Your task to perform on an android device: open app "Adobe Acrobat Reader" (install if not already installed) and go to login screen Image 0: 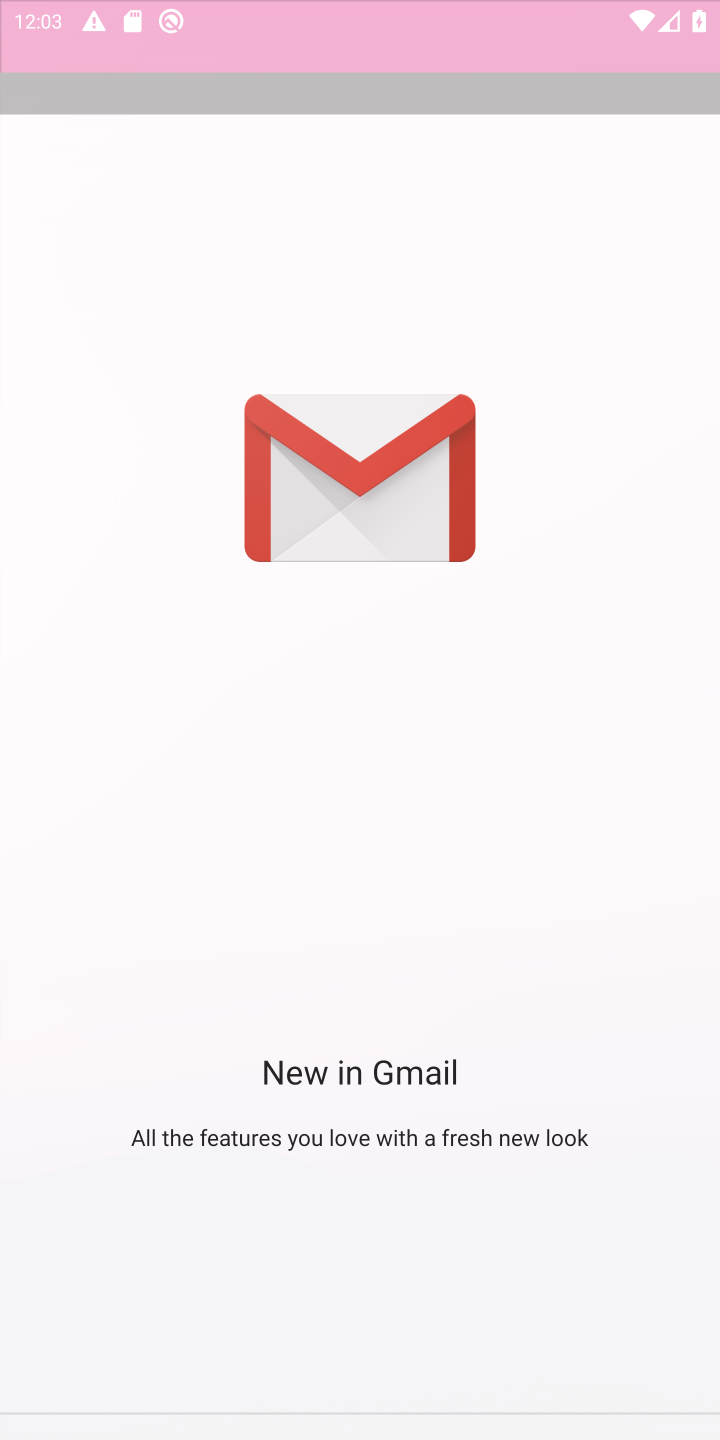
Step 0: click (574, 90)
Your task to perform on an android device: open app "Adobe Acrobat Reader" (install if not already installed) and go to login screen Image 1: 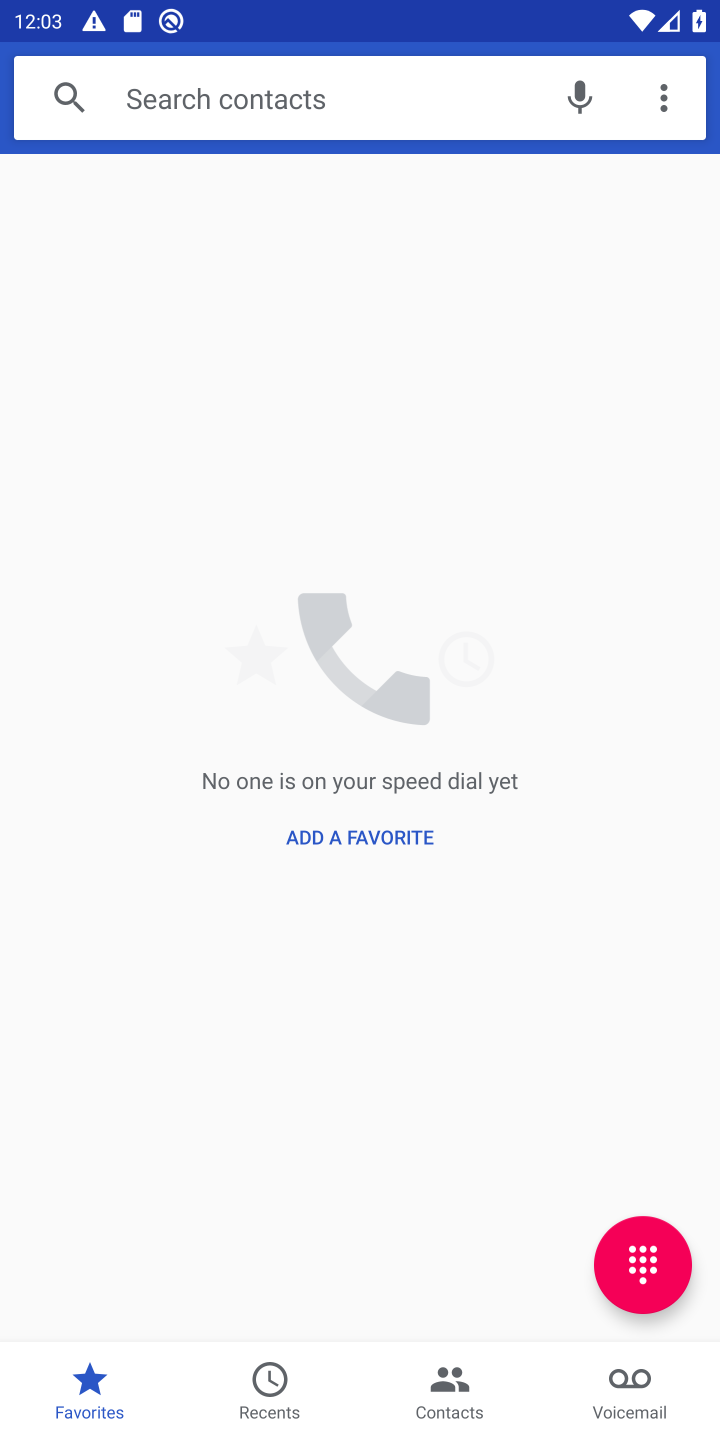
Step 1: press back button
Your task to perform on an android device: open app "Adobe Acrobat Reader" (install if not already installed) and go to login screen Image 2: 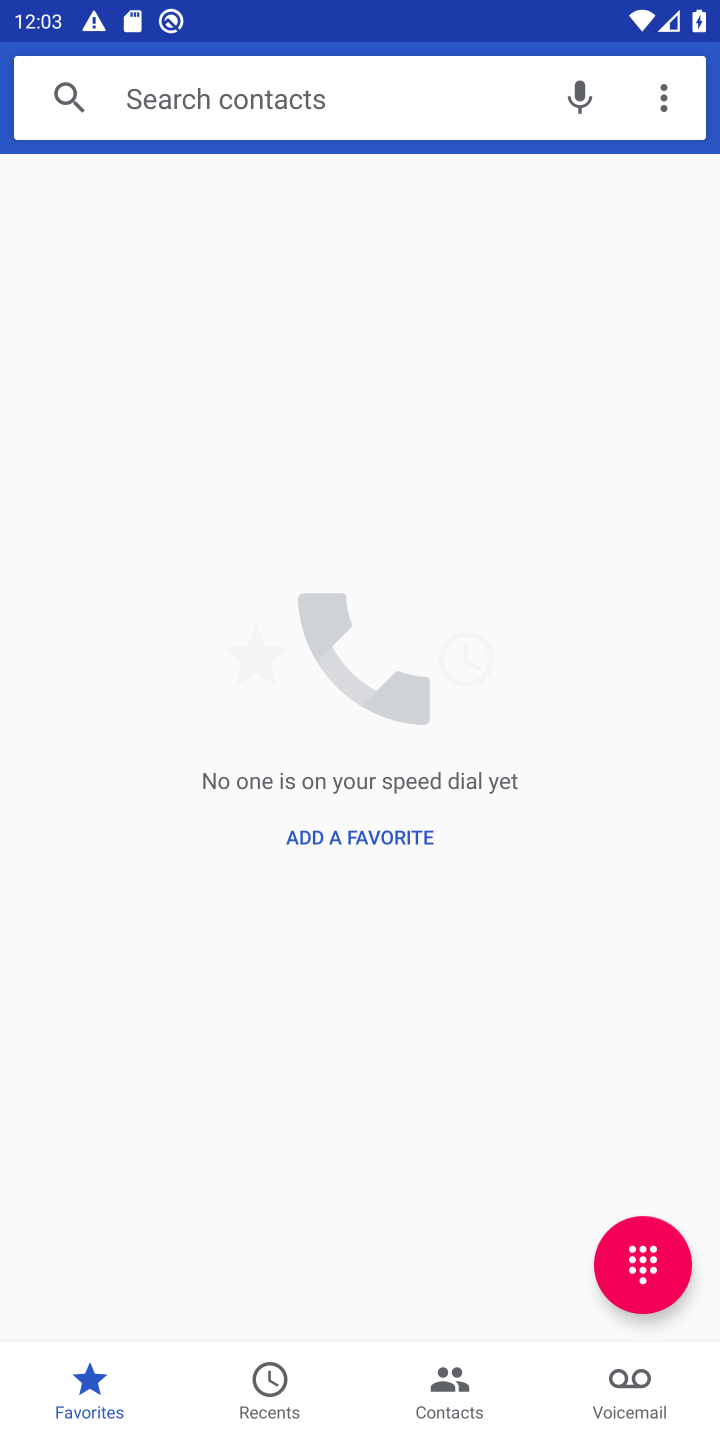
Step 2: press home button
Your task to perform on an android device: open app "Adobe Acrobat Reader" (install if not already installed) and go to login screen Image 3: 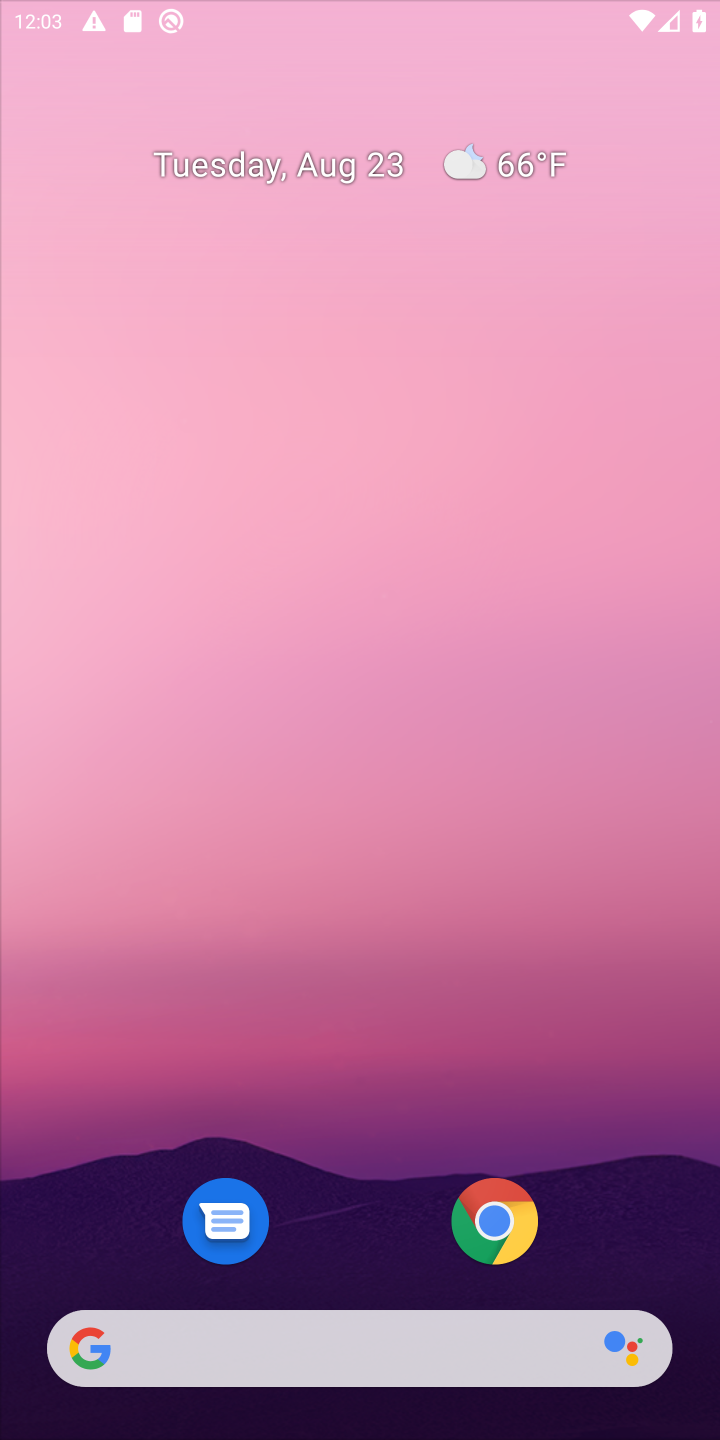
Step 3: drag from (382, 892) to (493, 122)
Your task to perform on an android device: open app "Adobe Acrobat Reader" (install if not already installed) and go to login screen Image 4: 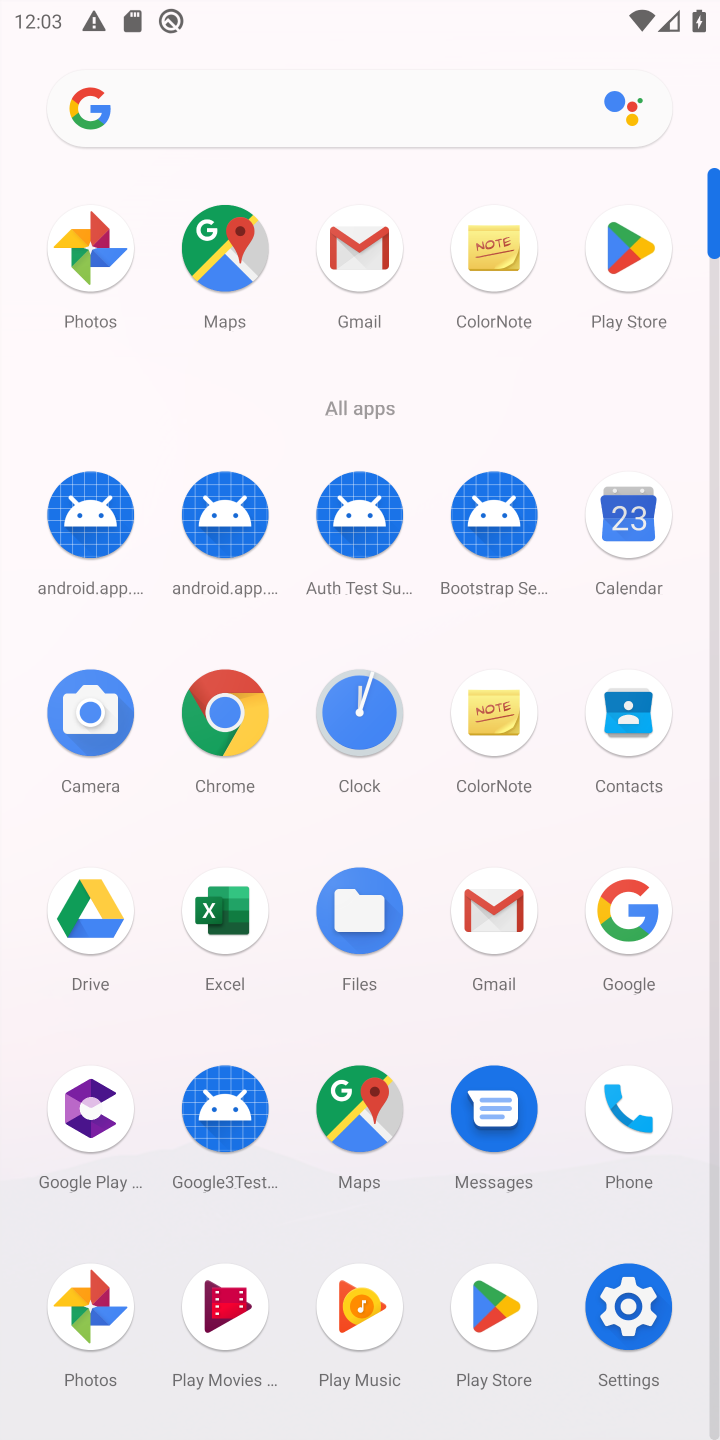
Step 4: click (629, 254)
Your task to perform on an android device: open app "Adobe Acrobat Reader" (install if not already installed) and go to login screen Image 5: 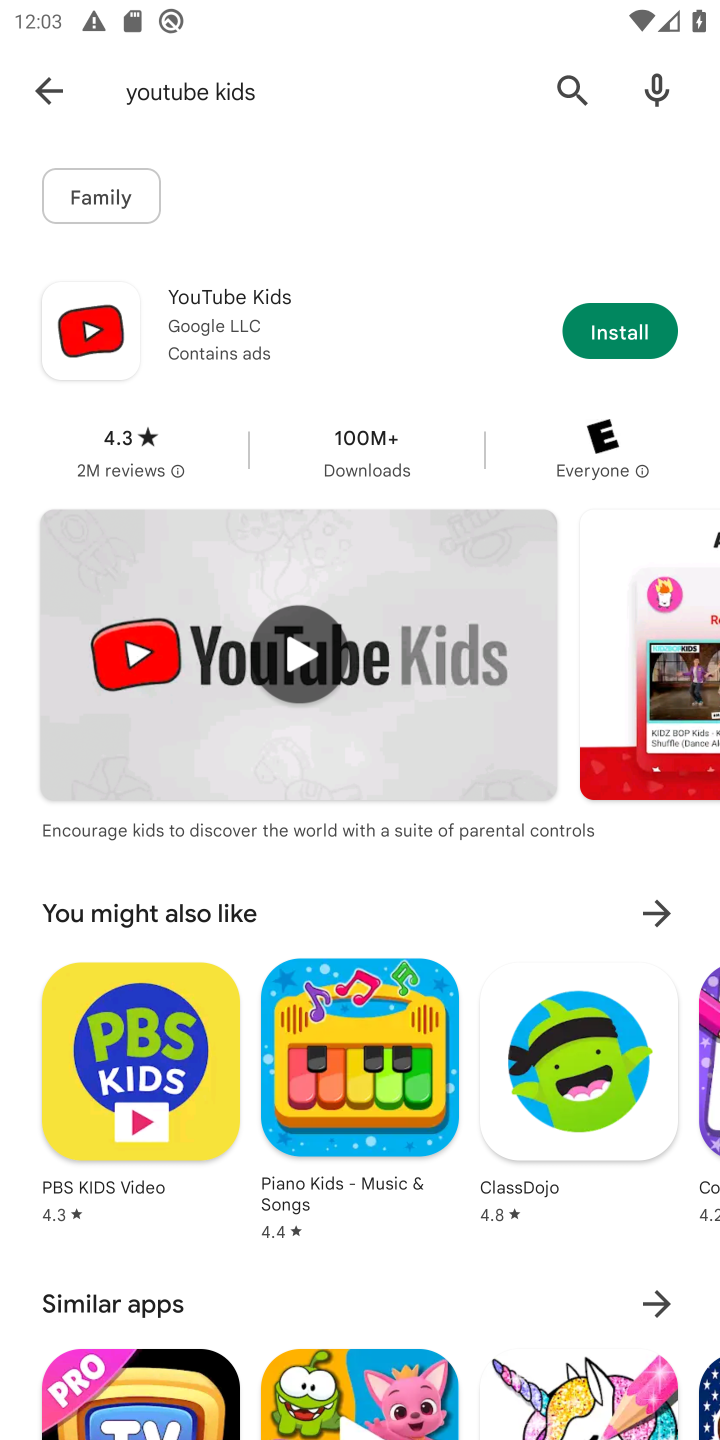
Step 5: click (568, 72)
Your task to perform on an android device: open app "Adobe Acrobat Reader" (install if not already installed) and go to login screen Image 6: 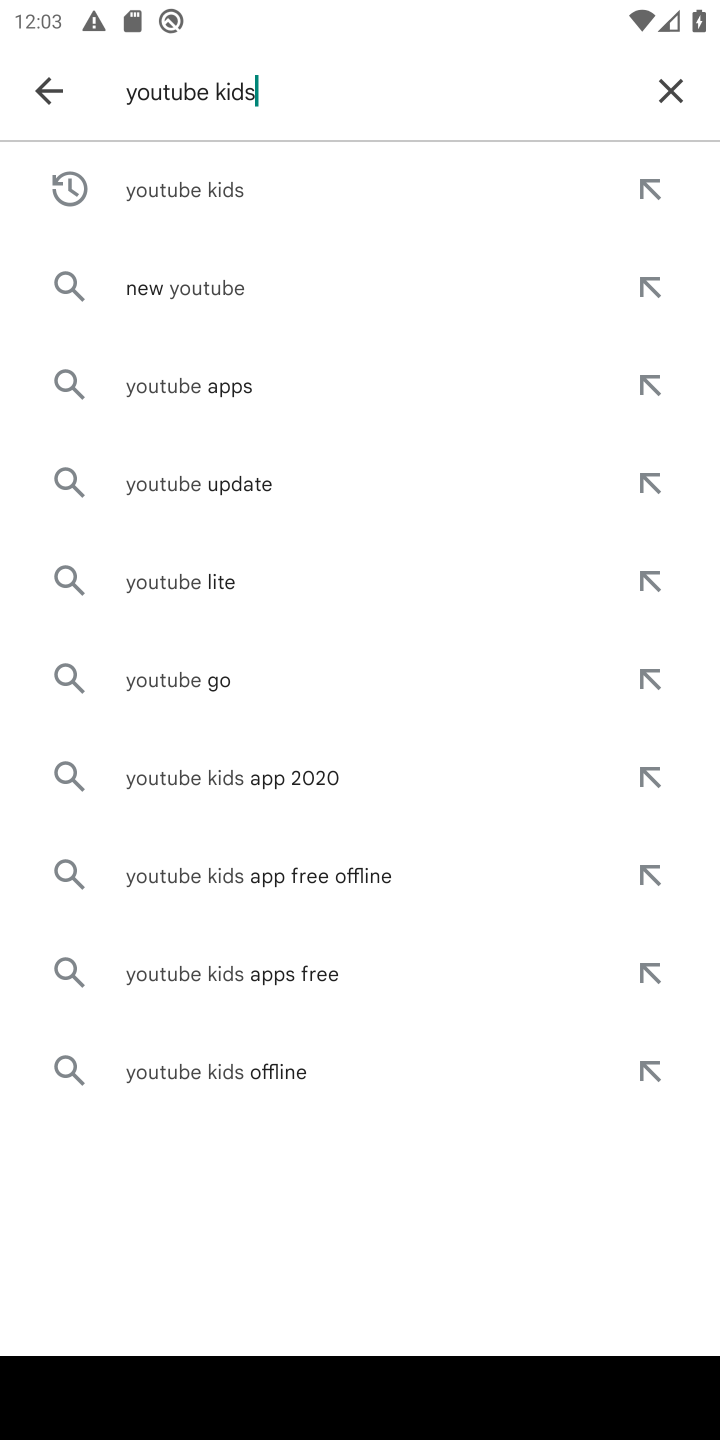
Step 6: click (680, 77)
Your task to perform on an android device: open app "Adobe Acrobat Reader" (install if not already installed) and go to login screen Image 7: 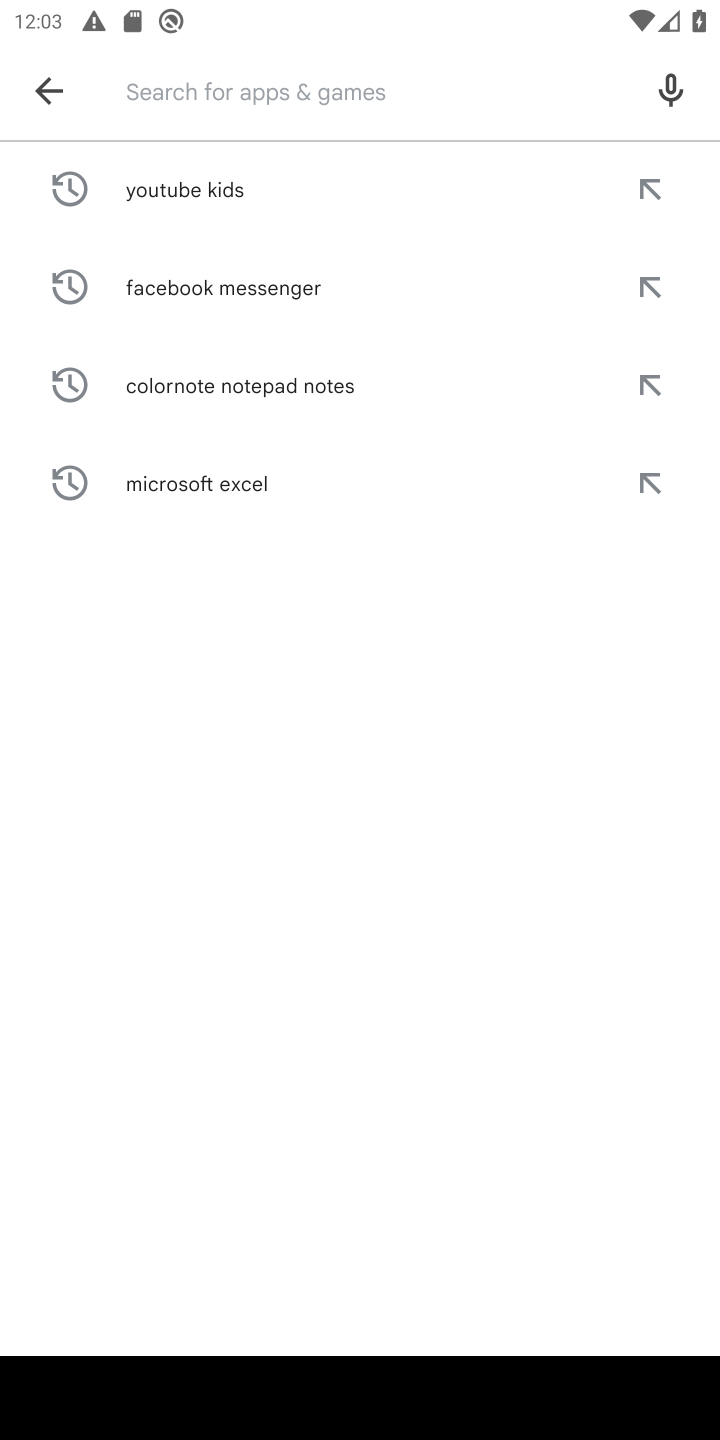
Step 7: click (168, 91)
Your task to perform on an android device: open app "Adobe Acrobat Reader" (install if not already installed) and go to login screen Image 8: 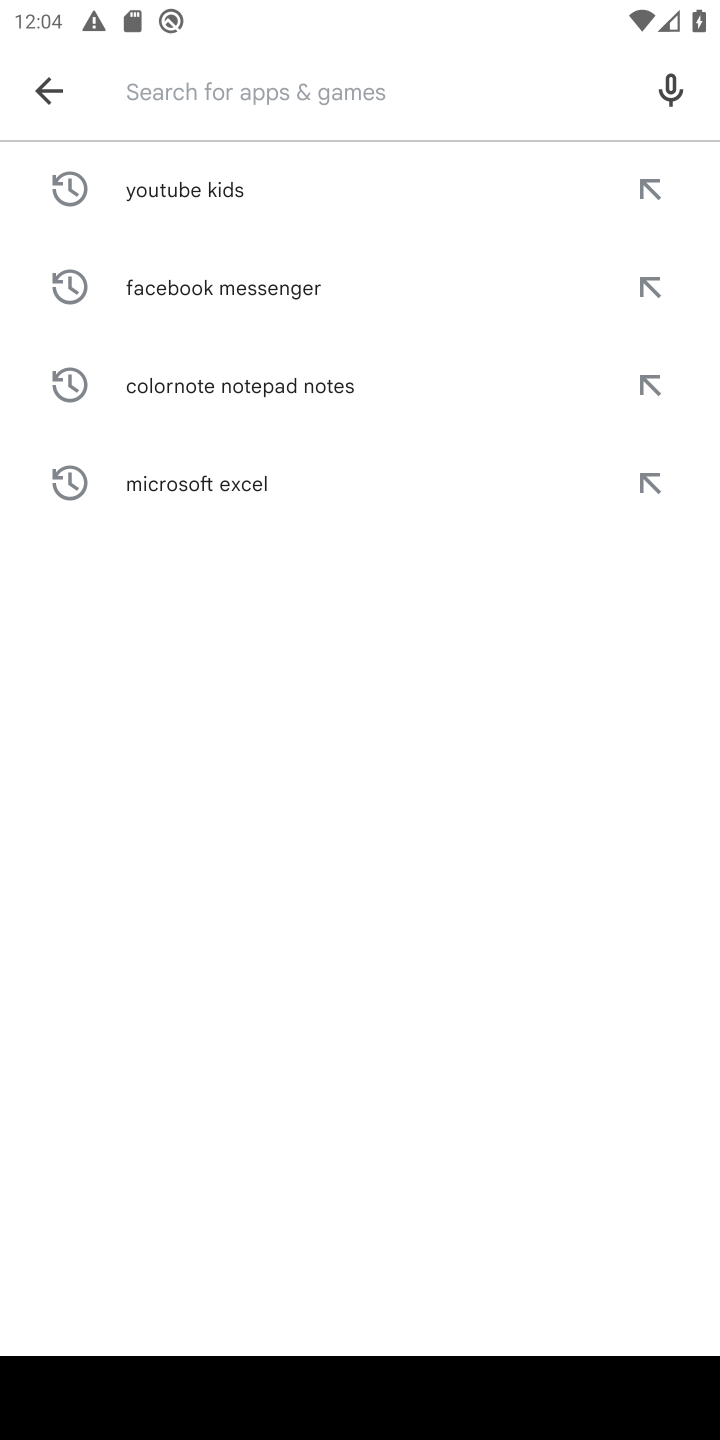
Step 8: type "Adobe Acrobat Reader"
Your task to perform on an android device: open app "Adobe Acrobat Reader" (install if not already installed) and go to login screen Image 9: 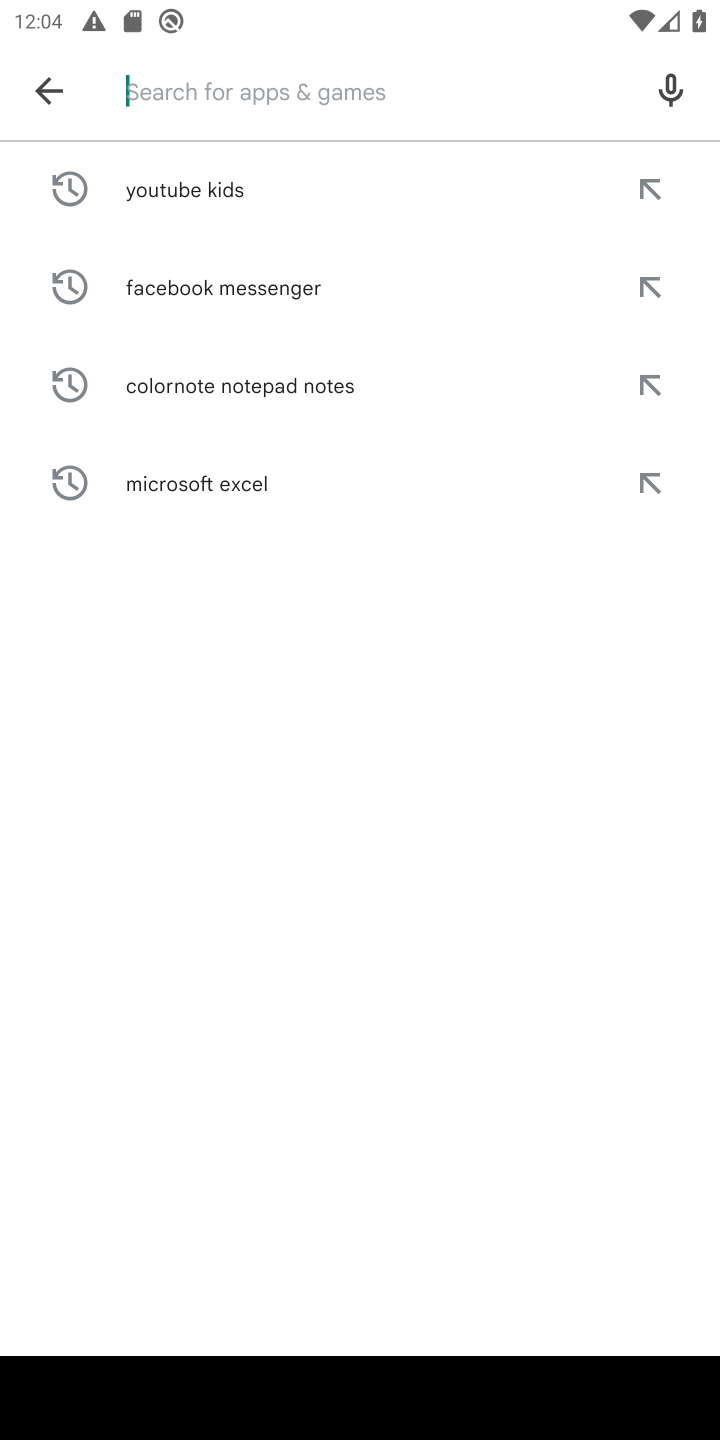
Step 9: click (492, 890)
Your task to perform on an android device: open app "Adobe Acrobat Reader" (install if not already installed) and go to login screen Image 10: 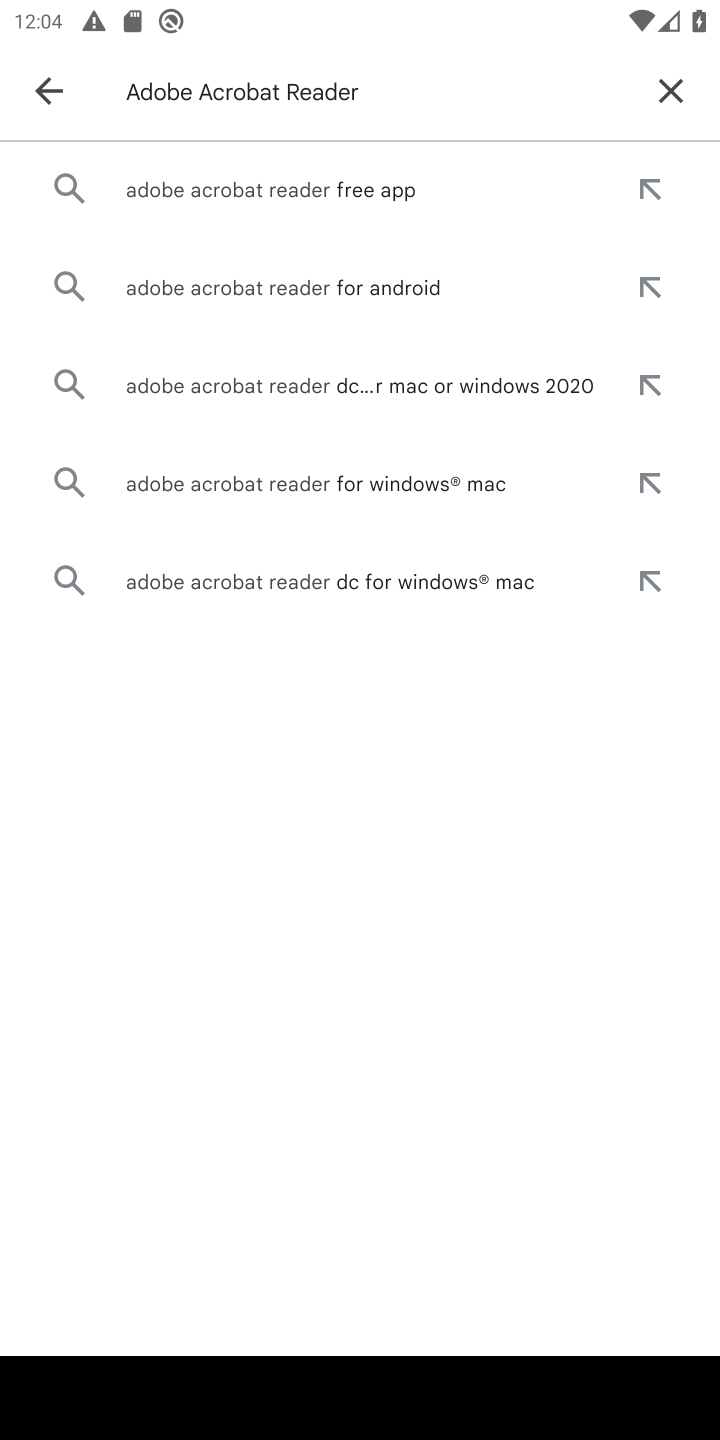
Step 10: click (312, 188)
Your task to perform on an android device: open app "Adobe Acrobat Reader" (install if not already installed) and go to login screen Image 11: 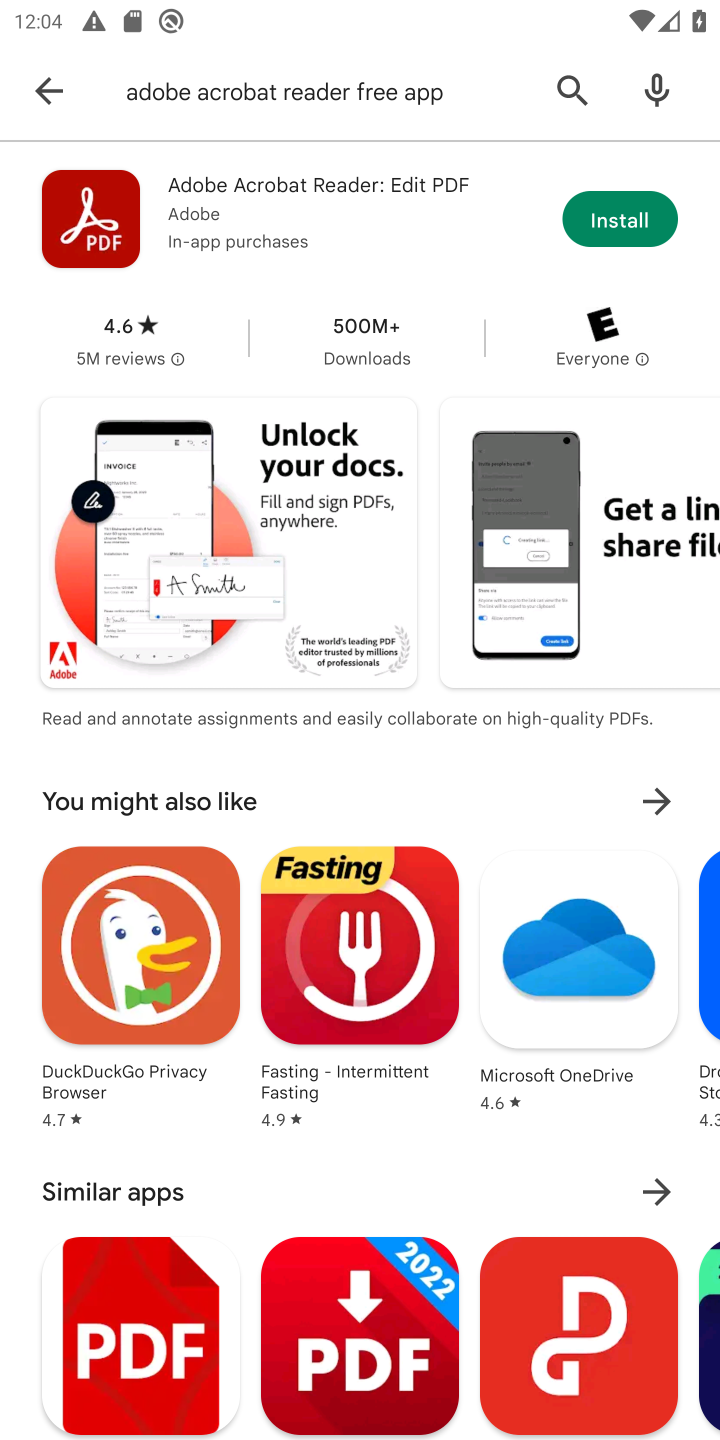
Step 11: click (657, 234)
Your task to perform on an android device: open app "Adobe Acrobat Reader" (install if not already installed) and go to login screen Image 12: 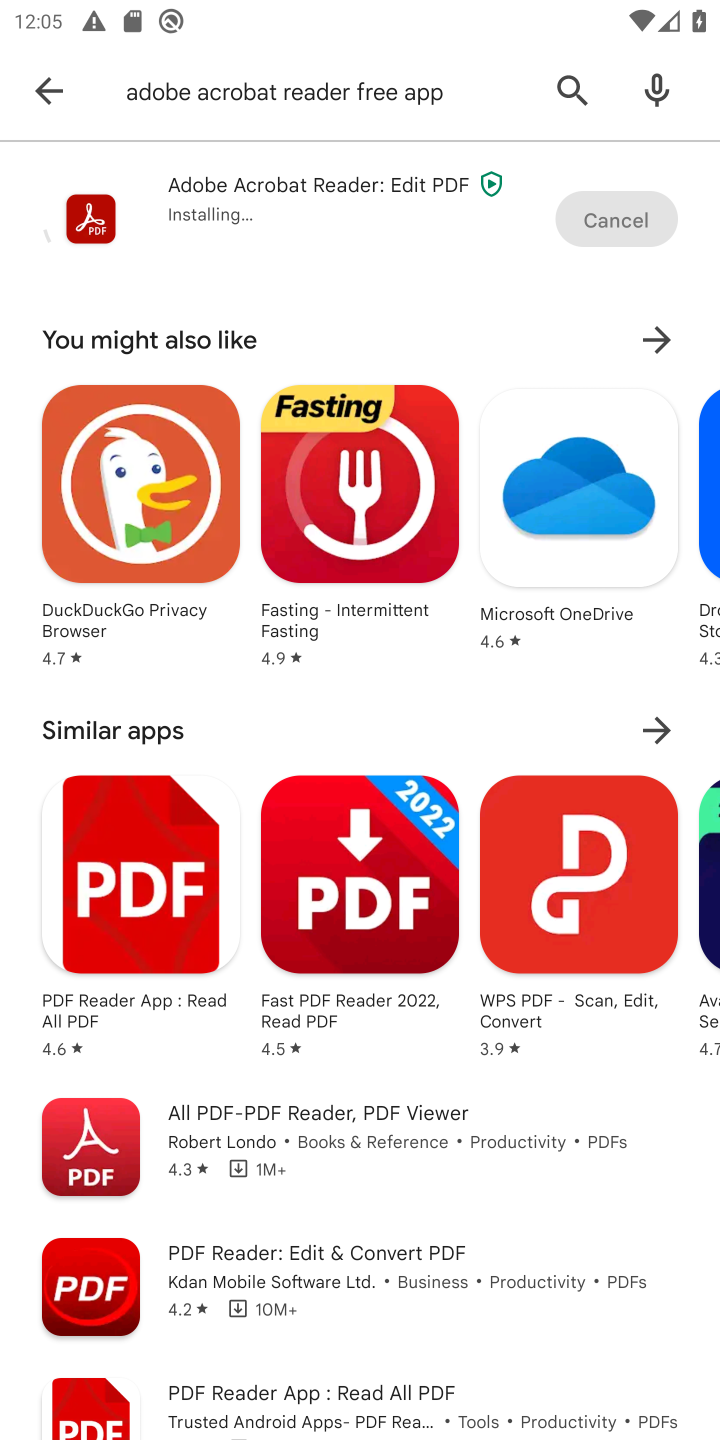
Step 12: press back button
Your task to perform on an android device: open app "Adobe Acrobat Reader" (install if not already installed) and go to login screen Image 13: 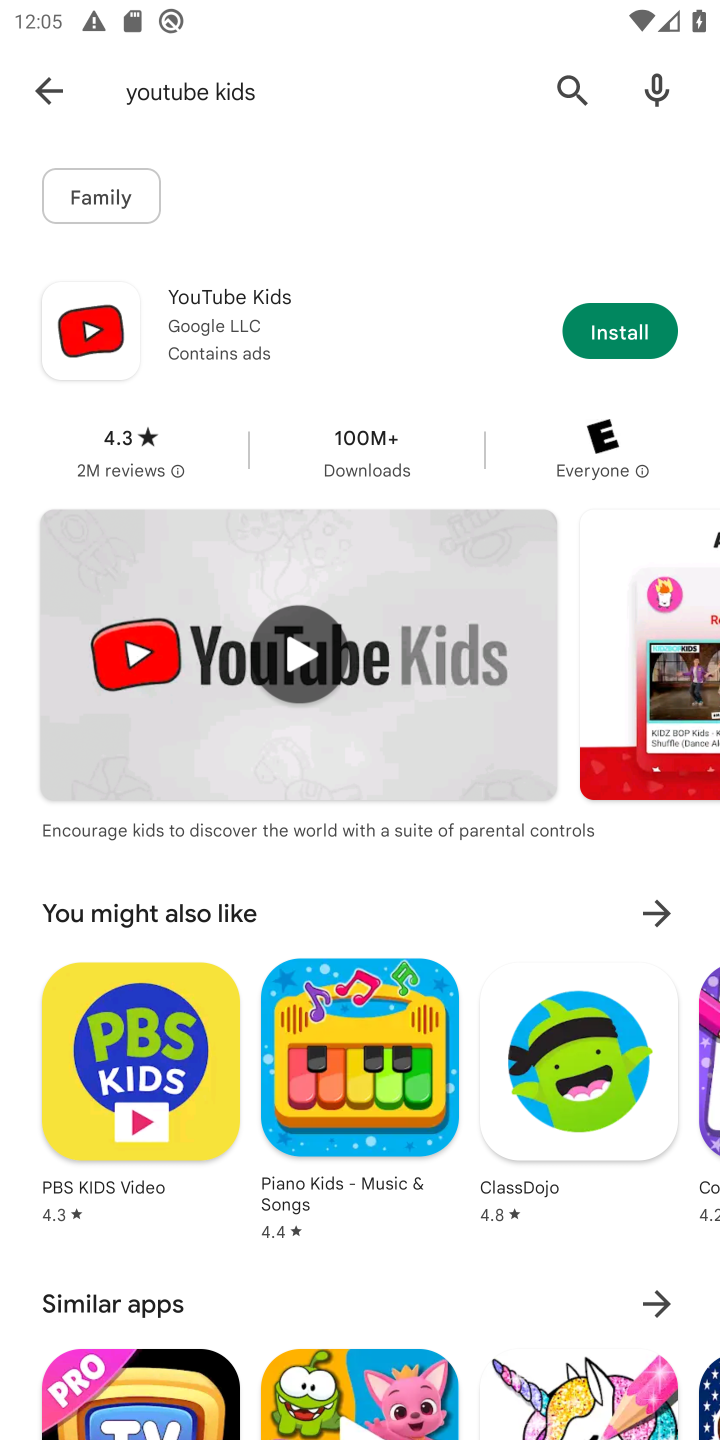
Step 13: click (599, 103)
Your task to perform on an android device: open app "Adobe Acrobat Reader" (install if not already installed) and go to login screen Image 14: 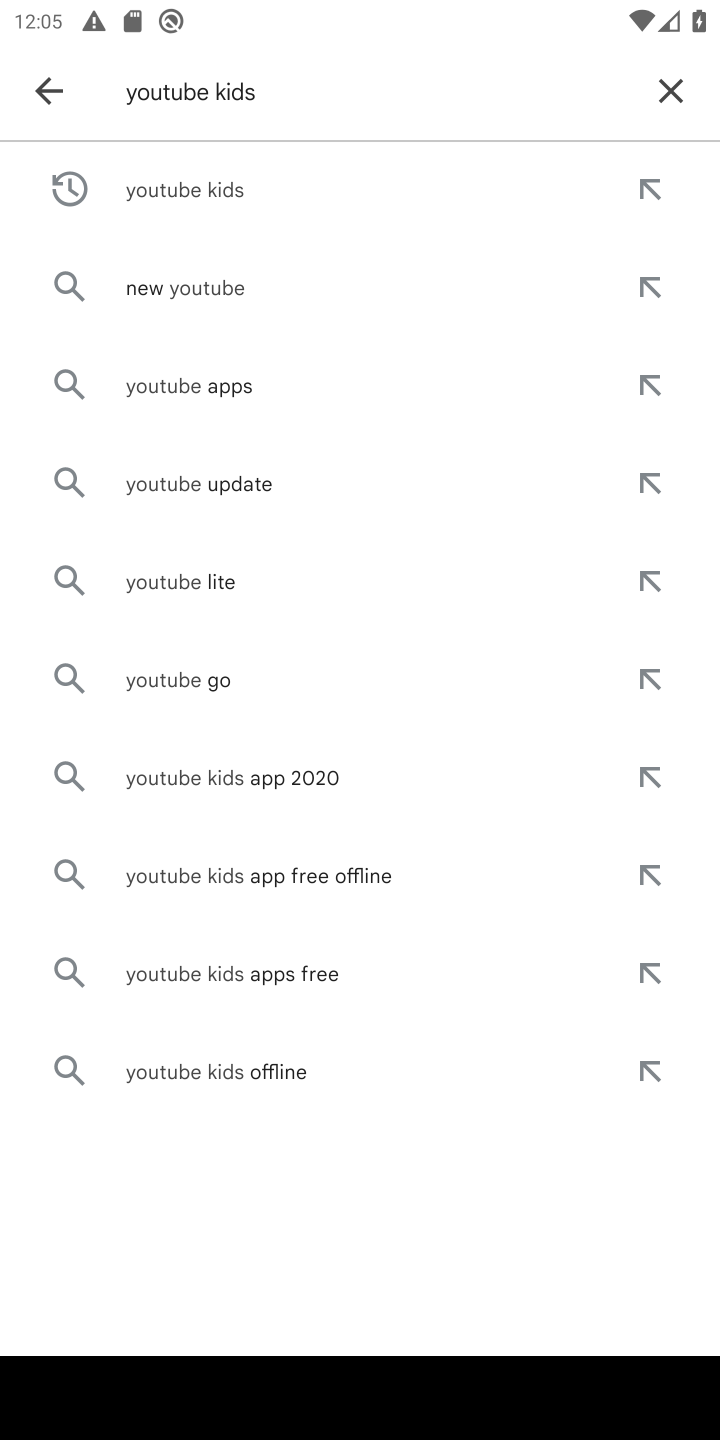
Step 14: click (675, 95)
Your task to perform on an android device: open app "Adobe Acrobat Reader" (install if not already installed) and go to login screen Image 15: 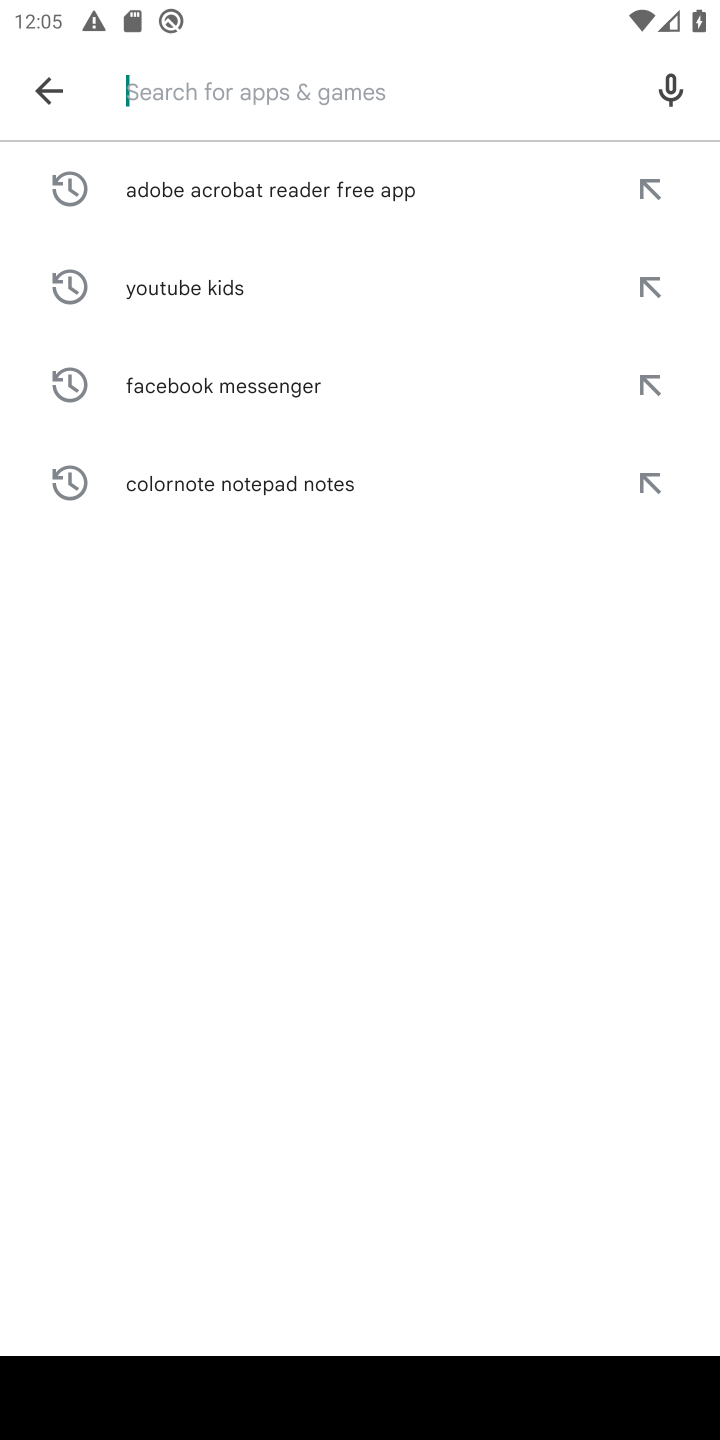
Step 15: click (161, 186)
Your task to perform on an android device: open app "Adobe Acrobat Reader" (install if not already installed) and go to login screen Image 16: 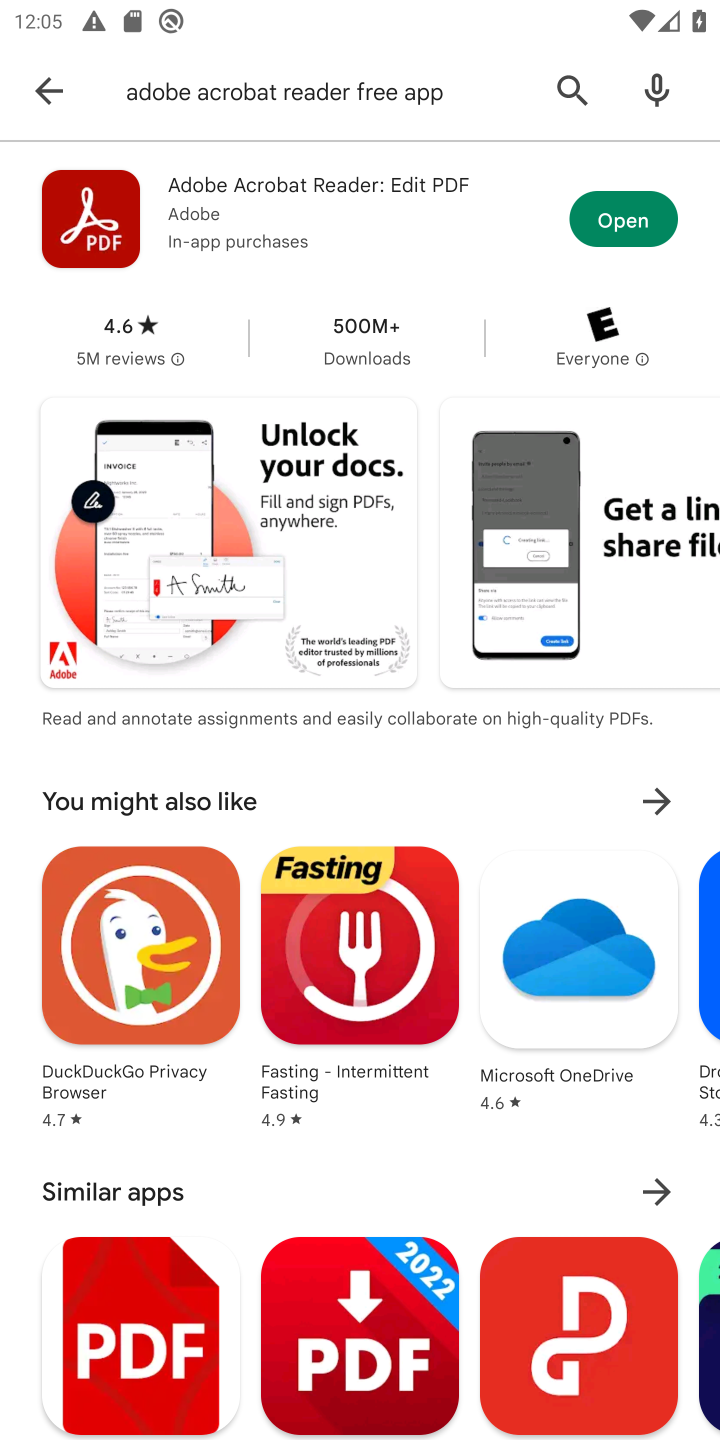
Step 16: click (596, 210)
Your task to perform on an android device: open app "Adobe Acrobat Reader" (install if not already installed) and go to login screen Image 17: 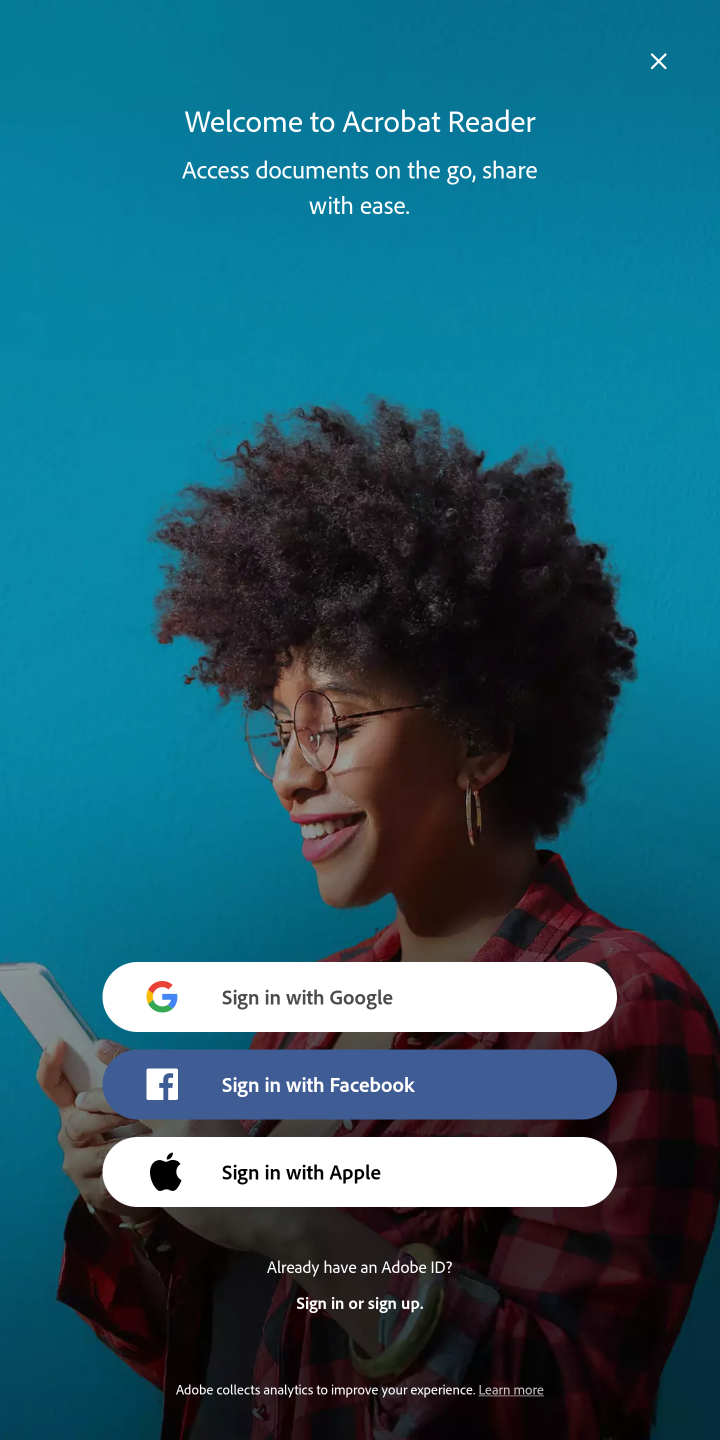
Step 17: task complete